Your task to perform on an android device: Open display settings Image 0: 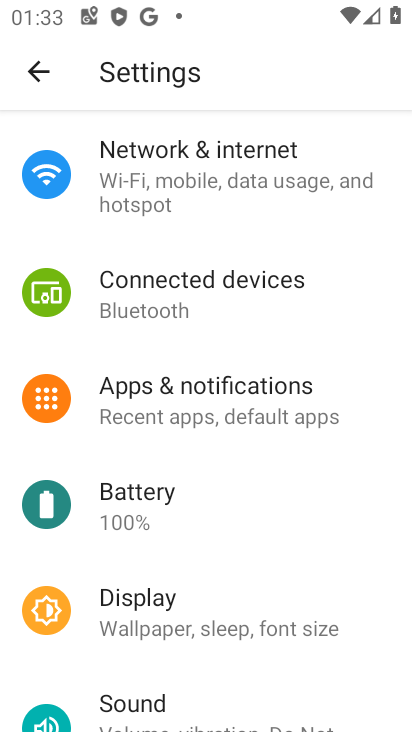
Step 0: click (107, 591)
Your task to perform on an android device: Open display settings Image 1: 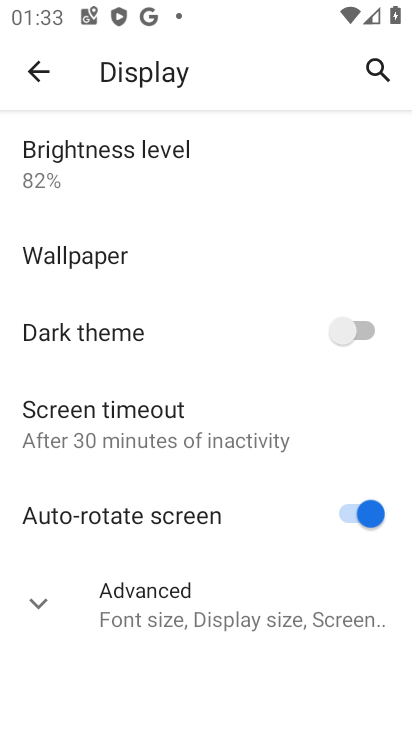
Step 1: task complete